Your task to perform on an android device: set the timer Image 0: 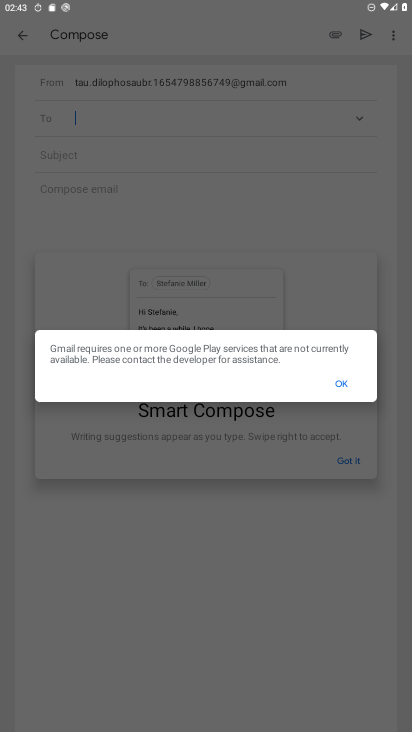
Step 0: press home button
Your task to perform on an android device: set the timer Image 1: 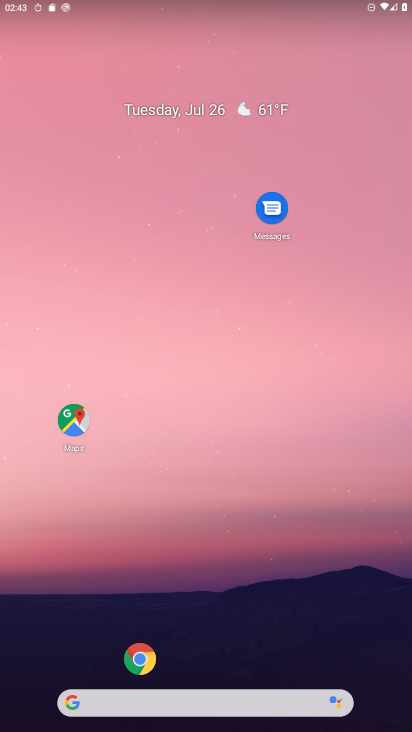
Step 1: drag from (45, 692) to (125, 150)
Your task to perform on an android device: set the timer Image 2: 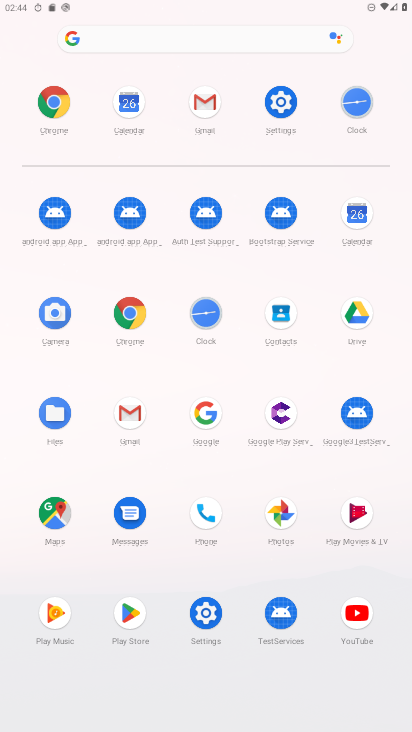
Step 2: click (352, 104)
Your task to perform on an android device: set the timer Image 3: 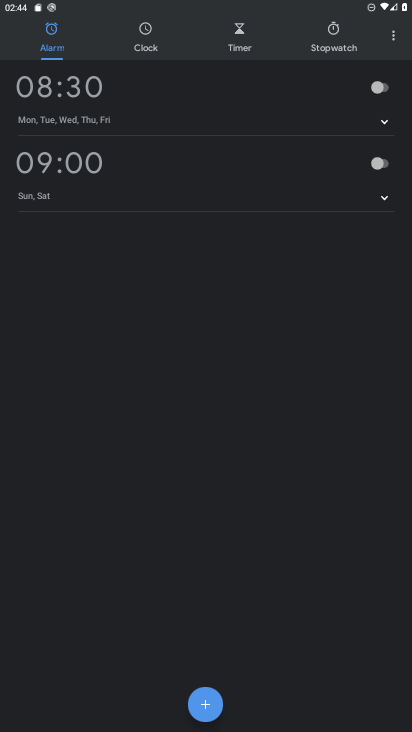
Step 3: click (243, 40)
Your task to perform on an android device: set the timer Image 4: 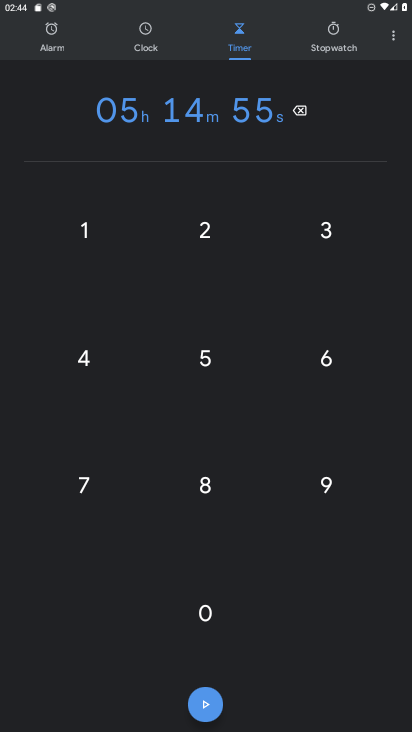
Step 4: click (194, 367)
Your task to perform on an android device: set the timer Image 5: 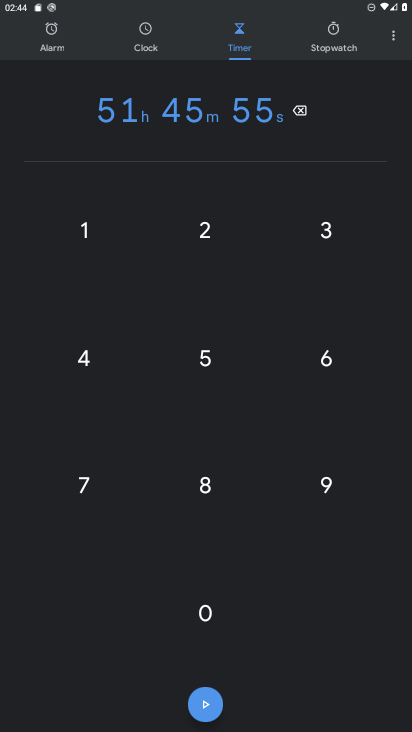
Step 5: click (206, 702)
Your task to perform on an android device: set the timer Image 6: 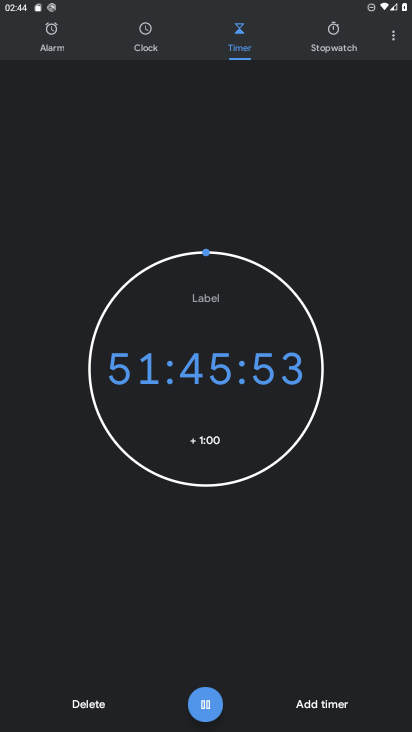
Step 6: click (204, 700)
Your task to perform on an android device: set the timer Image 7: 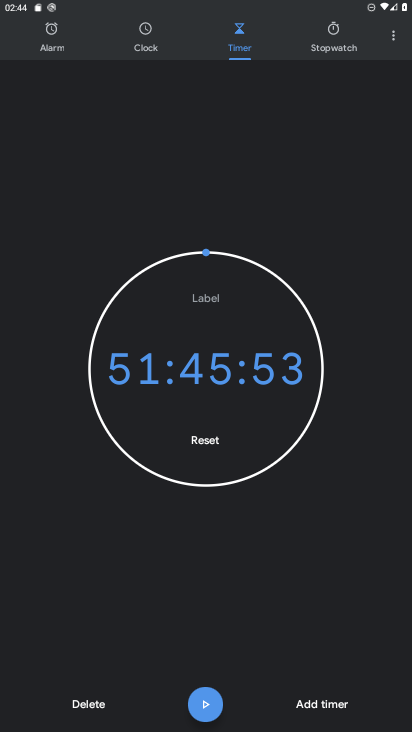
Step 7: task complete